Your task to perform on an android device: turn on javascript in the chrome app Image 0: 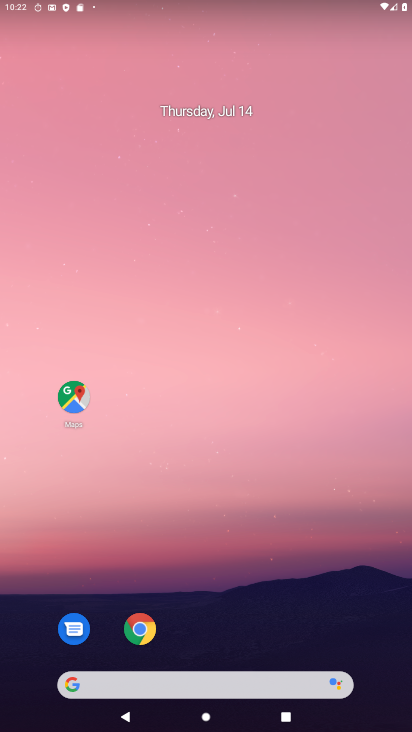
Step 0: click (143, 634)
Your task to perform on an android device: turn on javascript in the chrome app Image 1: 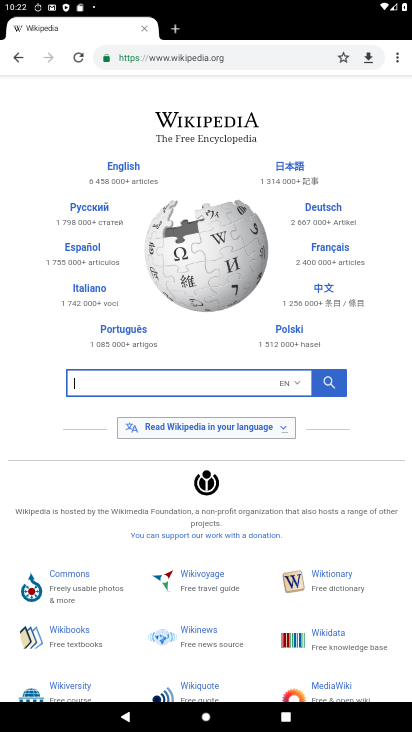
Step 1: click (398, 55)
Your task to perform on an android device: turn on javascript in the chrome app Image 2: 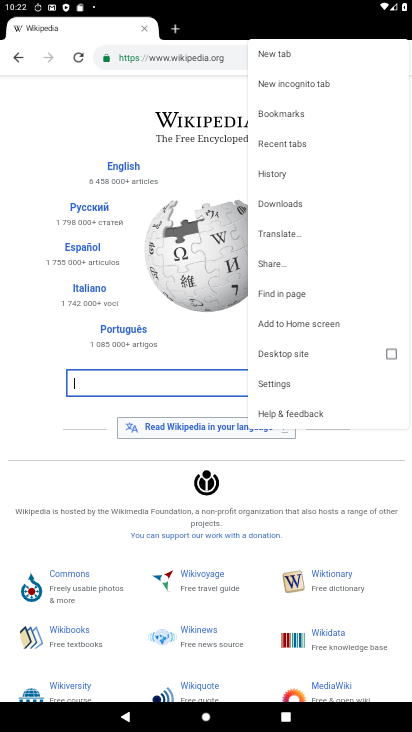
Step 2: click (282, 384)
Your task to perform on an android device: turn on javascript in the chrome app Image 3: 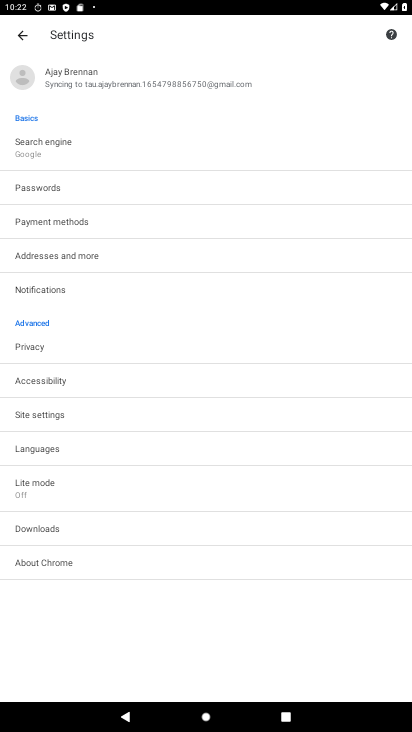
Step 3: click (82, 418)
Your task to perform on an android device: turn on javascript in the chrome app Image 4: 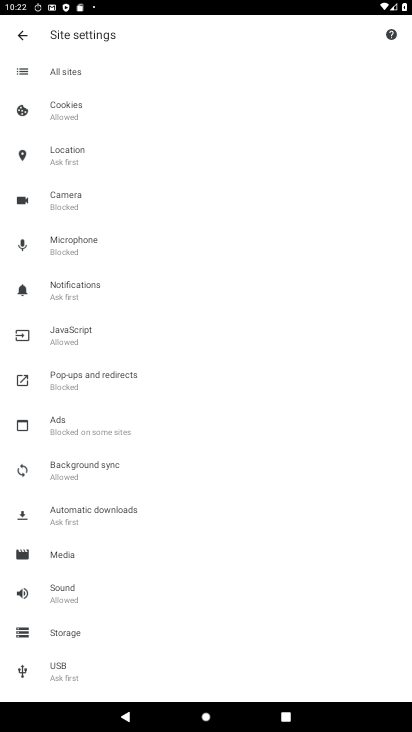
Step 4: click (112, 337)
Your task to perform on an android device: turn on javascript in the chrome app Image 5: 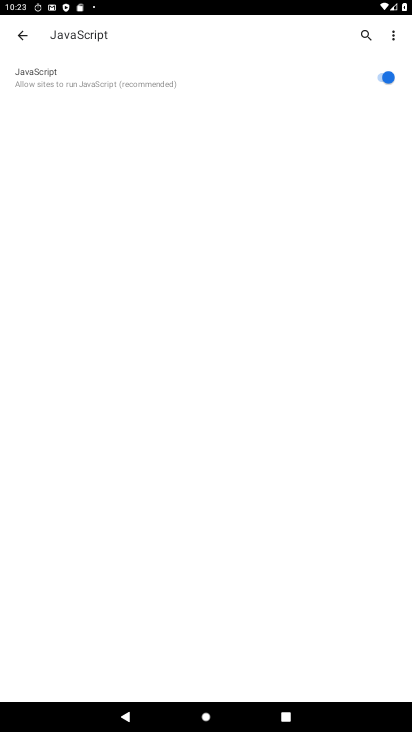
Step 5: task complete